Your task to perform on an android device: open the mobile data screen to see how much data has been used Image 0: 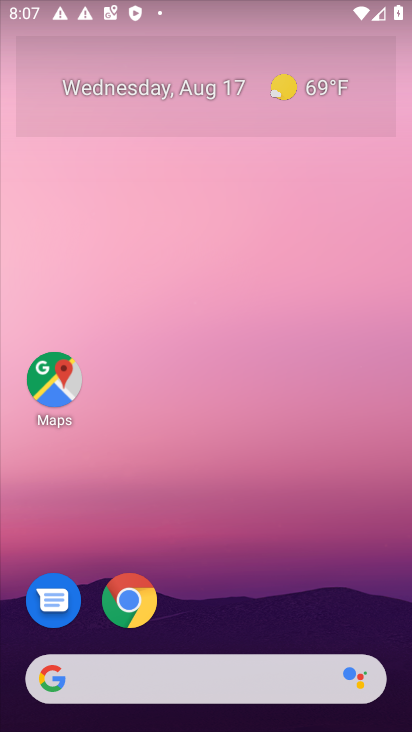
Step 0: drag from (246, 583) to (256, 144)
Your task to perform on an android device: open the mobile data screen to see how much data has been used Image 1: 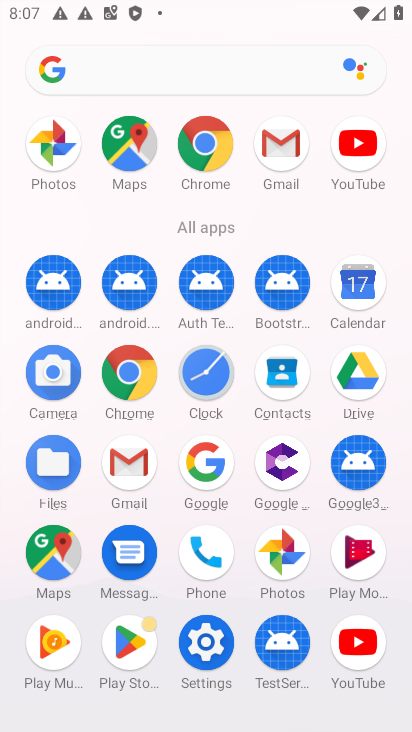
Step 1: click (204, 634)
Your task to perform on an android device: open the mobile data screen to see how much data has been used Image 2: 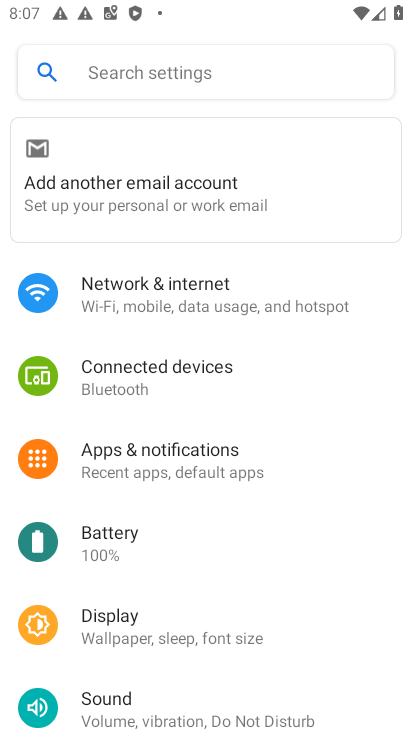
Step 2: click (172, 298)
Your task to perform on an android device: open the mobile data screen to see how much data has been used Image 3: 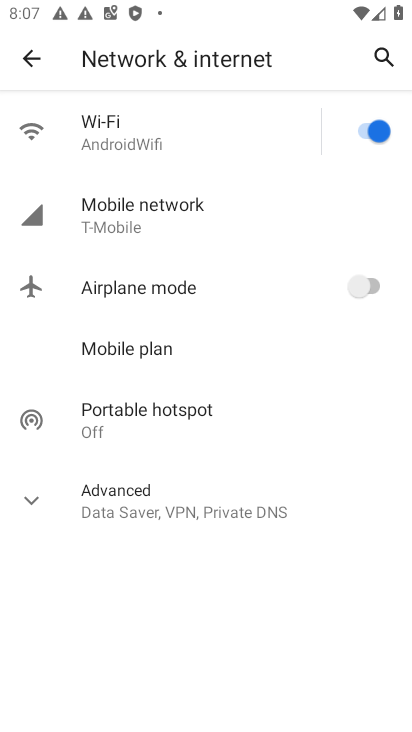
Step 3: click (147, 203)
Your task to perform on an android device: open the mobile data screen to see how much data has been used Image 4: 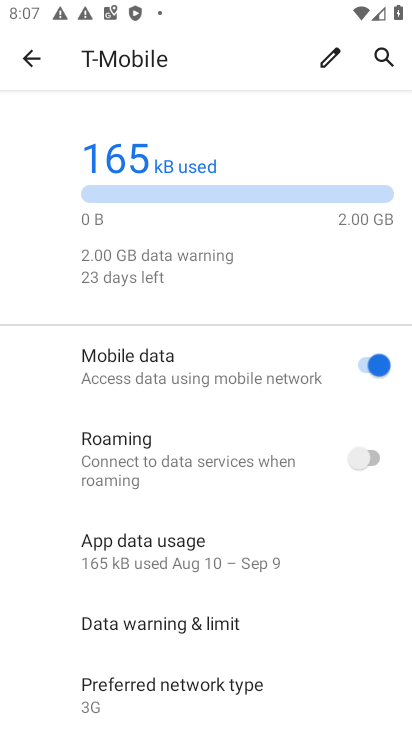
Step 4: task complete